Your task to perform on an android device: Show me recent news Image 0: 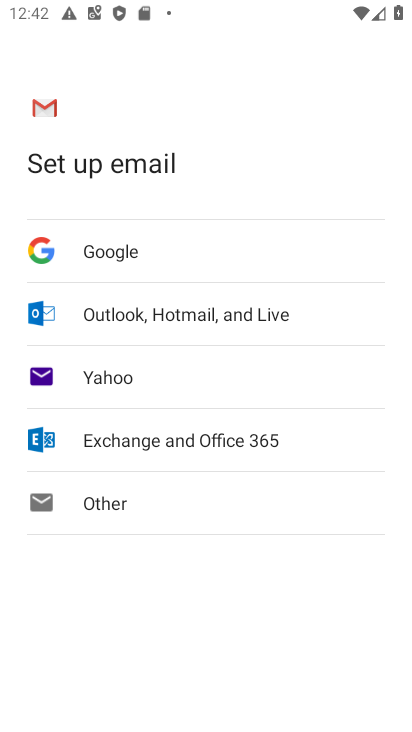
Step 0: press home button
Your task to perform on an android device: Show me recent news Image 1: 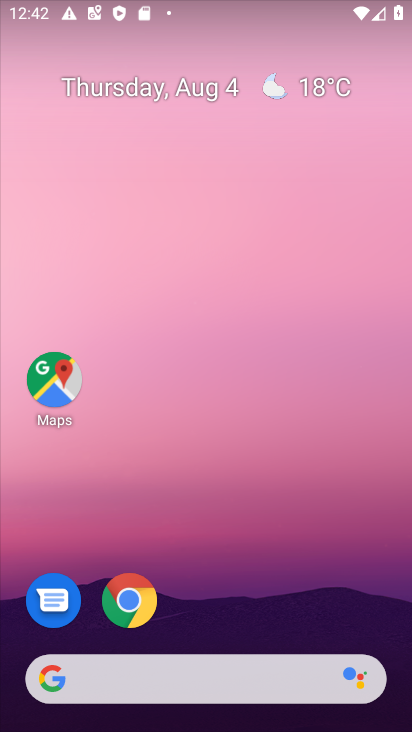
Step 1: click (112, 674)
Your task to perform on an android device: Show me recent news Image 2: 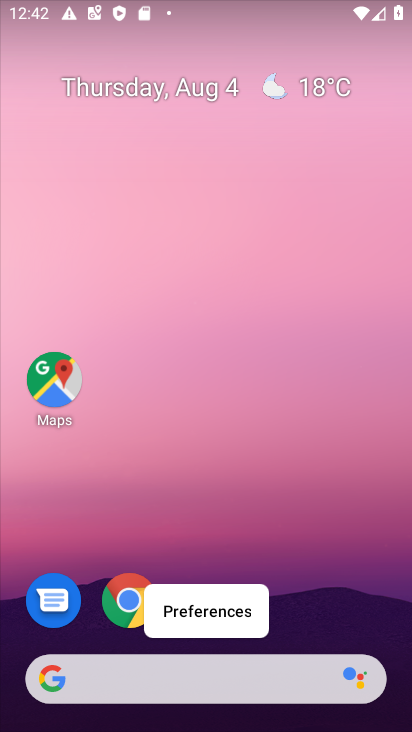
Step 2: click (128, 690)
Your task to perform on an android device: Show me recent news Image 3: 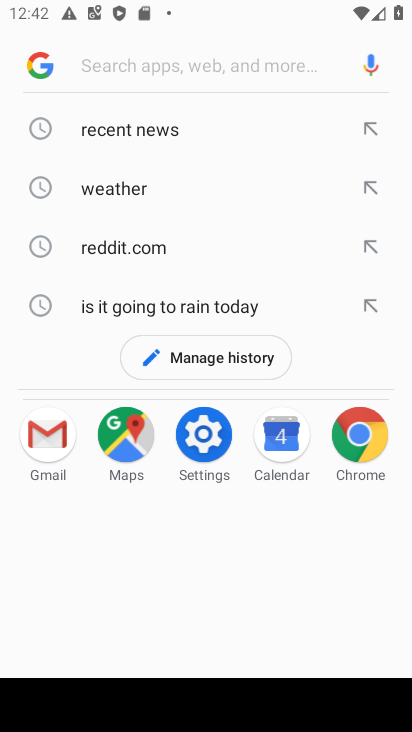
Step 3: click (134, 124)
Your task to perform on an android device: Show me recent news Image 4: 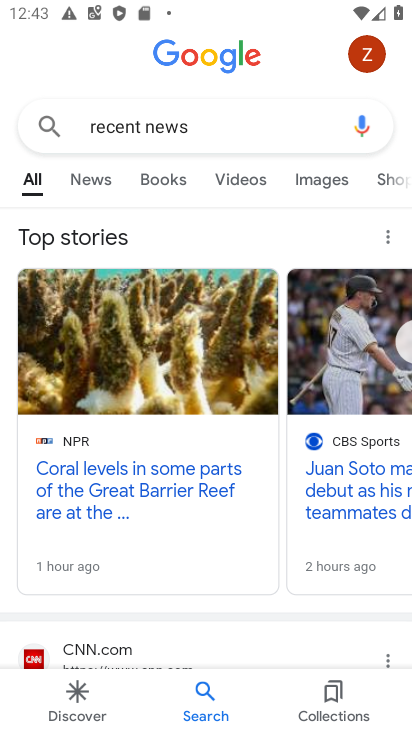
Step 4: click (105, 177)
Your task to perform on an android device: Show me recent news Image 5: 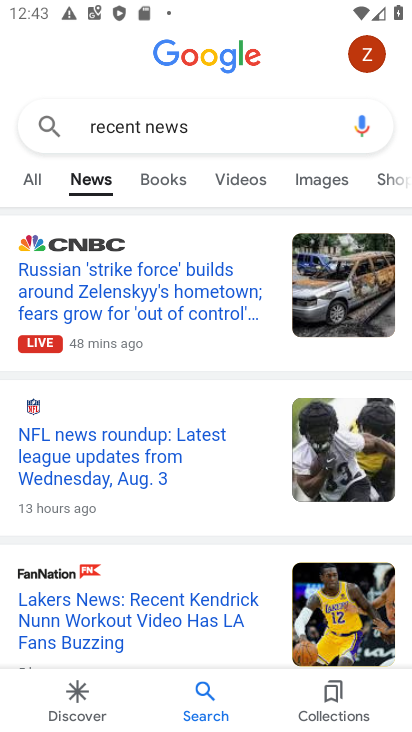
Step 5: task complete